Your task to perform on an android device: Open privacy settings Image 0: 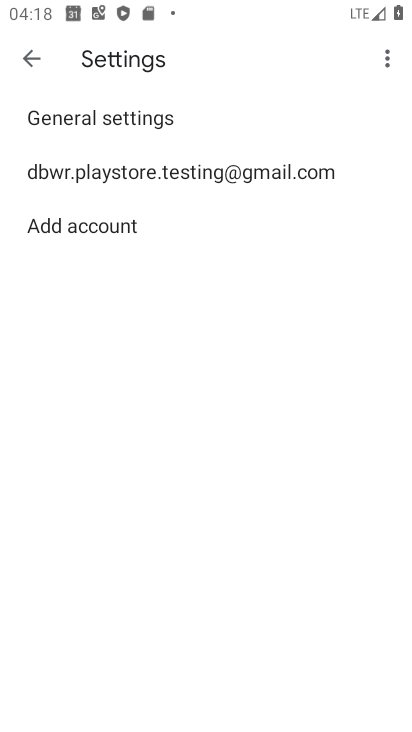
Step 0: press home button
Your task to perform on an android device: Open privacy settings Image 1: 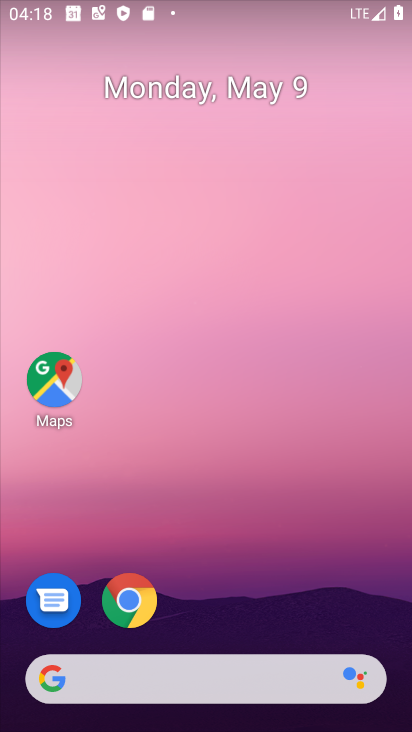
Step 1: drag from (269, 630) to (233, 55)
Your task to perform on an android device: Open privacy settings Image 2: 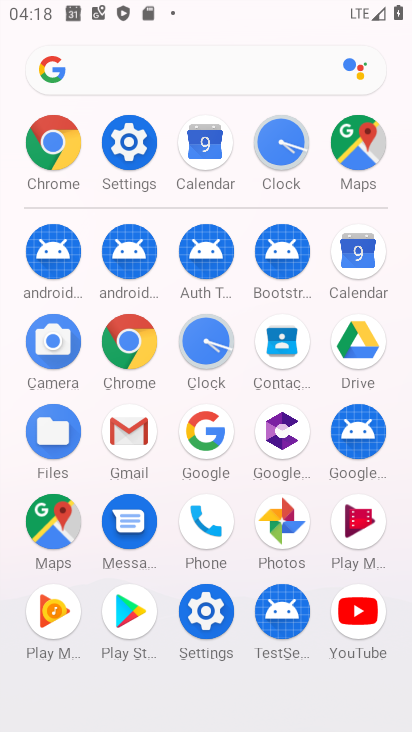
Step 2: click (139, 144)
Your task to perform on an android device: Open privacy settings Image 3: 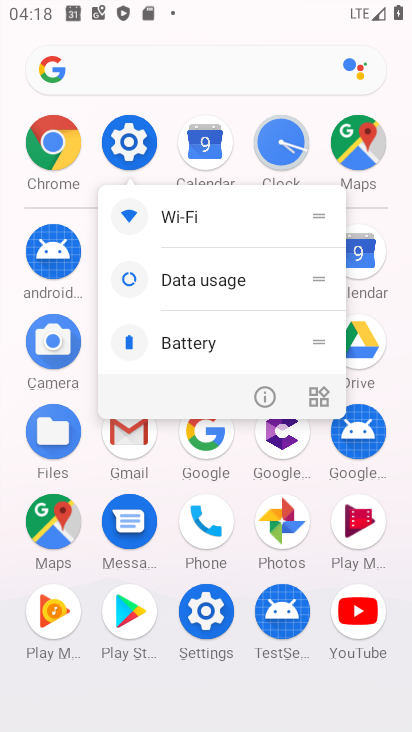
Step 3: click (139, 144)
Your task to perform on an android device: Open privacy settings Image 4: 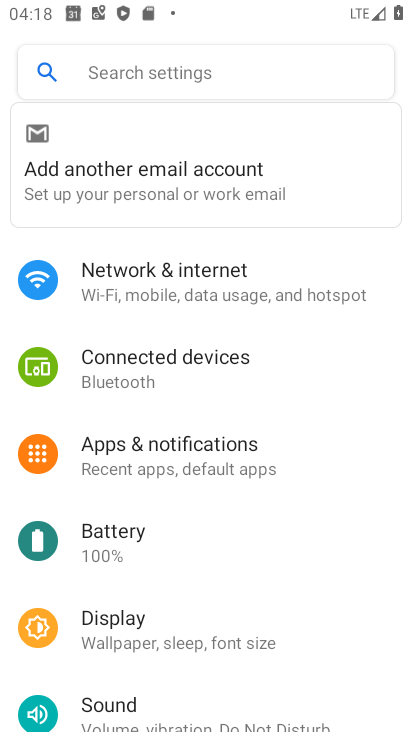
Step 4: drag from (227, 683) to (249, 184)
Your task to perform on an android device: Open privacy settings Image 5: 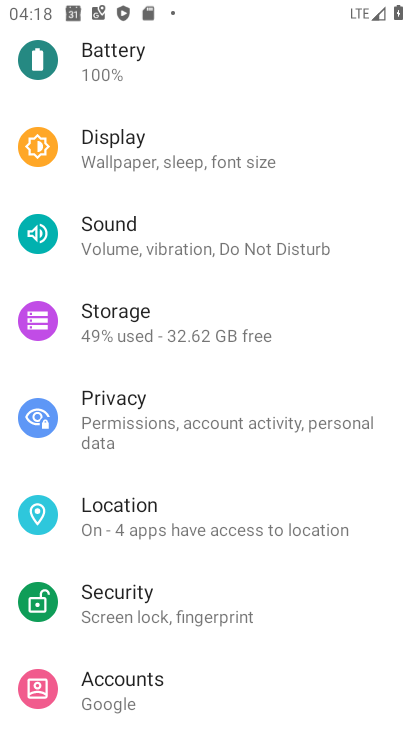
Step 5: click (206, 374)
Your task to perform on an android device: Open privacy settings Image 6: 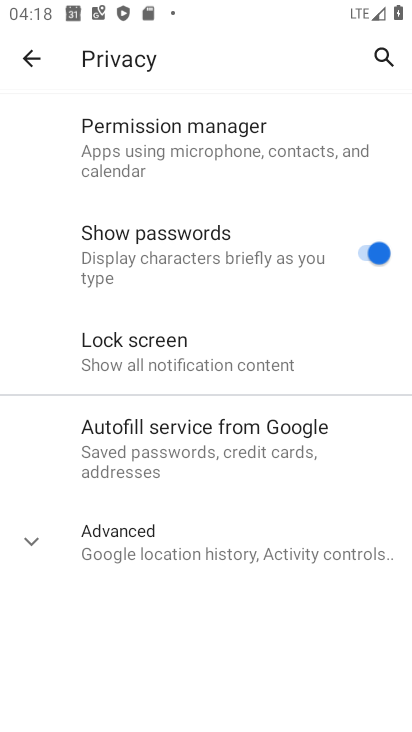
Step 6: task complete